Your task to perform on an android device: Open Amazon Image 0: 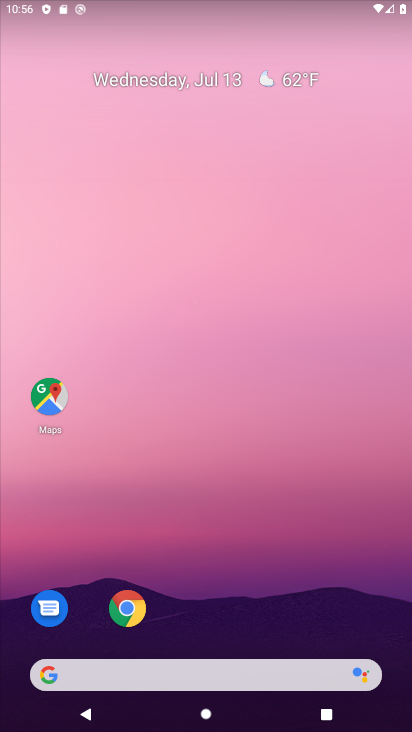
Step 0: drag from (235, 710) to (245, 99)
Your task to perform on an android device: Open Amazon Image 1: 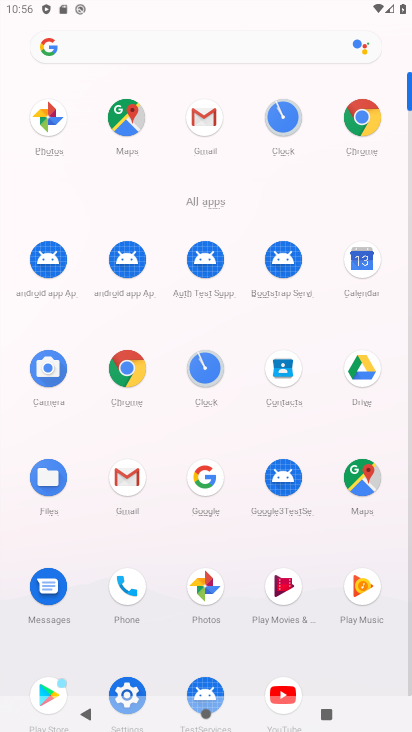
Step 1: click (357, 108)
Your task to perform on an android device: Open Amazon Image 2: 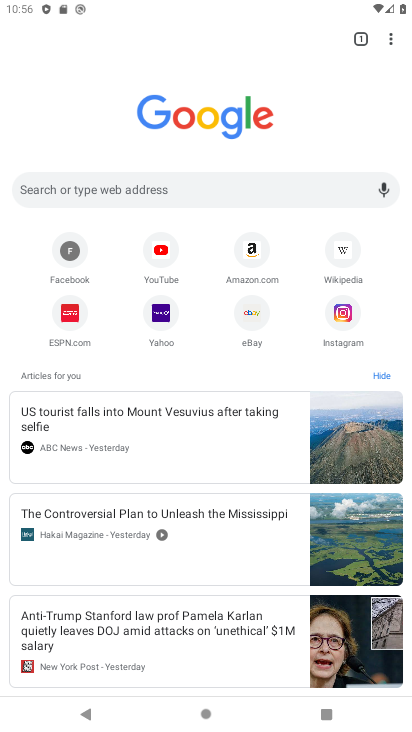
Step 2: click (252, 255)
Your task to perform on an android device: Open Amazon Image 3: 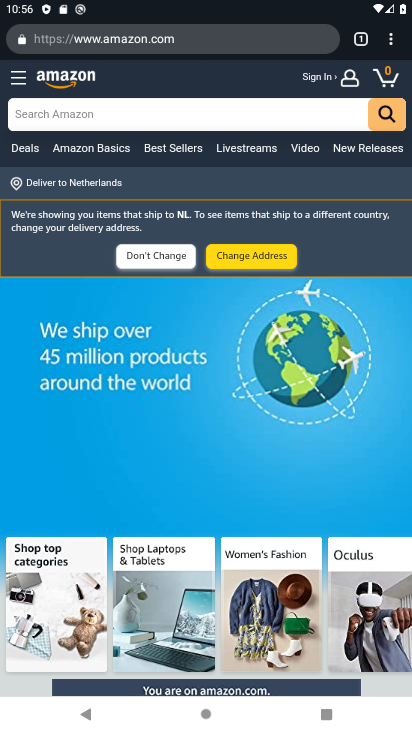
Step 3: task complete